Your task to perform on an android device: turn on location history Image 0: 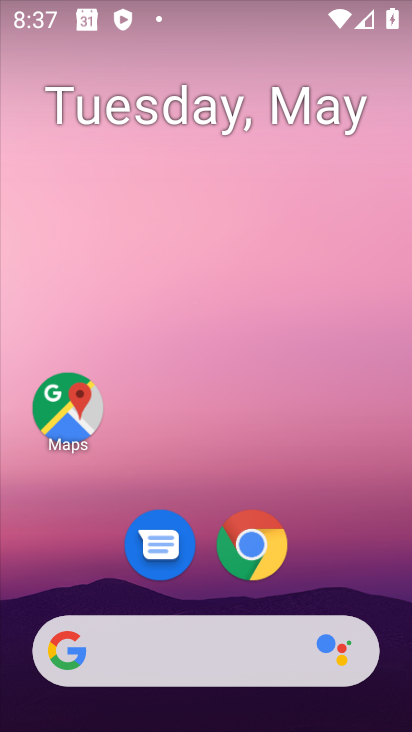
Step 0: drag from (348, 543) to (321, 138)
Your task to perform on an android device: turn on location history Image 1: 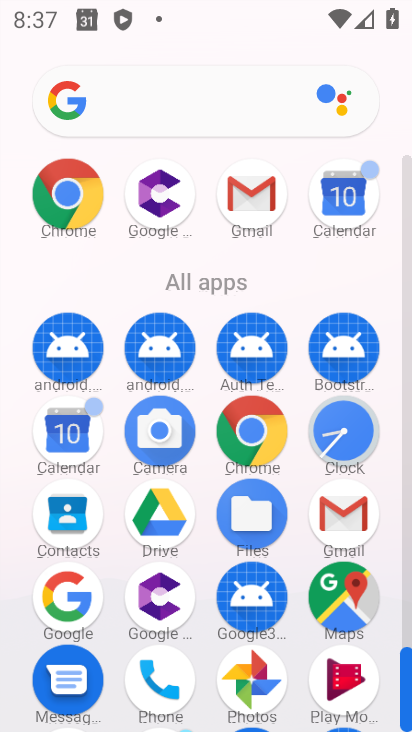
Step 1: drag from (155, 653) to (207, 306)
Your task to perform on an android device: turn on location history Image 2: 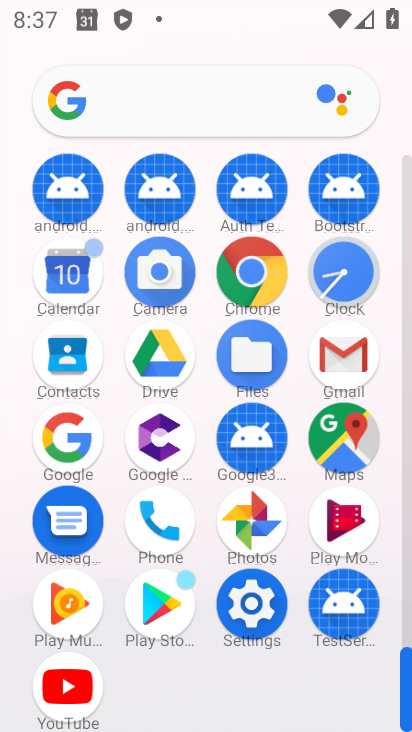
Step 2: click (253, 607)
Your task to perform on an android device: turn on location history Image 3: 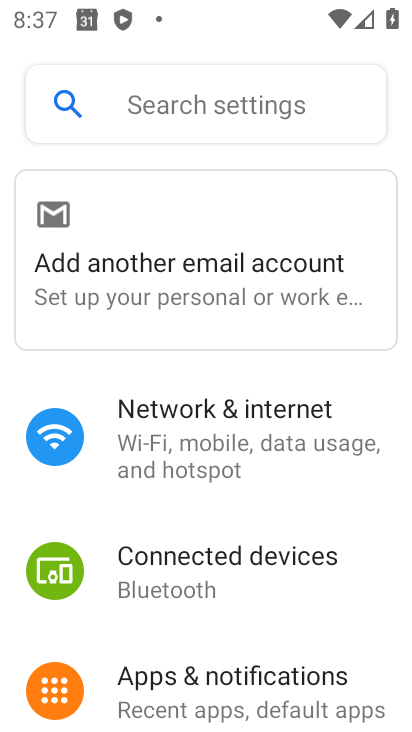
Step 3: drag from (364, 607) to (308, 257)
Your task to perform on an android device: turn on location history Image 4: 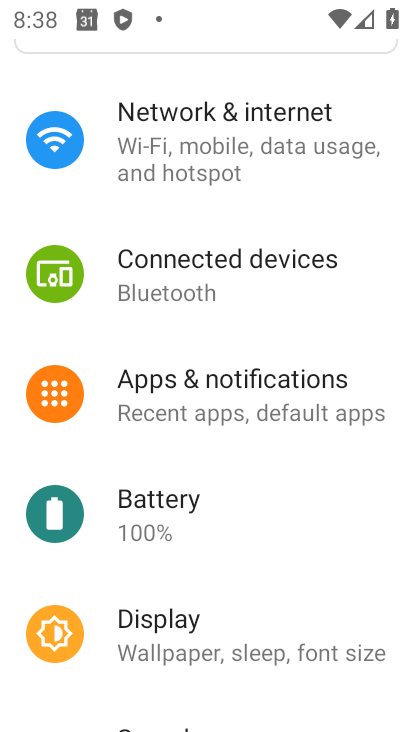
Step 4: drag from (245, 528) to (273, 186)
Your task to perform on an android device: turn on location history Image 5: 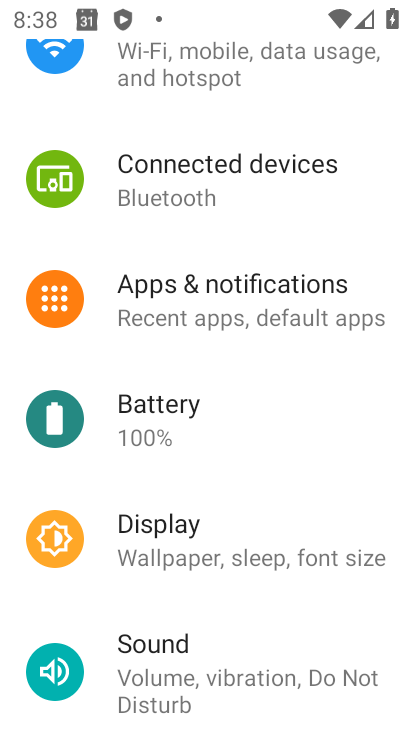
Step 5: drag from (256, 606) to (278, 309)
Your task to perform on an android device: turn on location history Image 6: 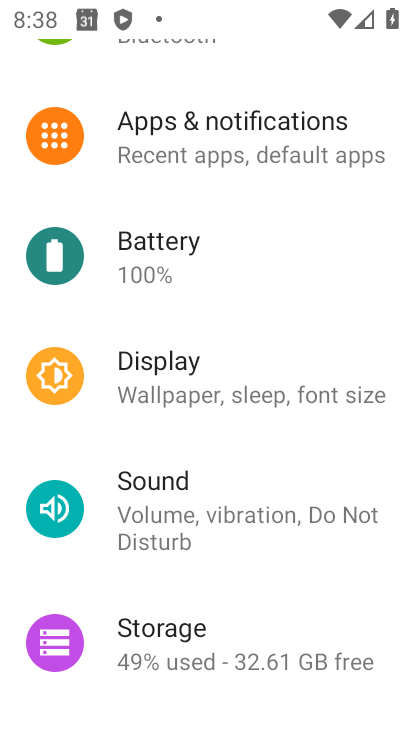
Step 6: drag from (247, 578) to (266, 325)
Your task to perform on an android device: turn on location history Image 7: 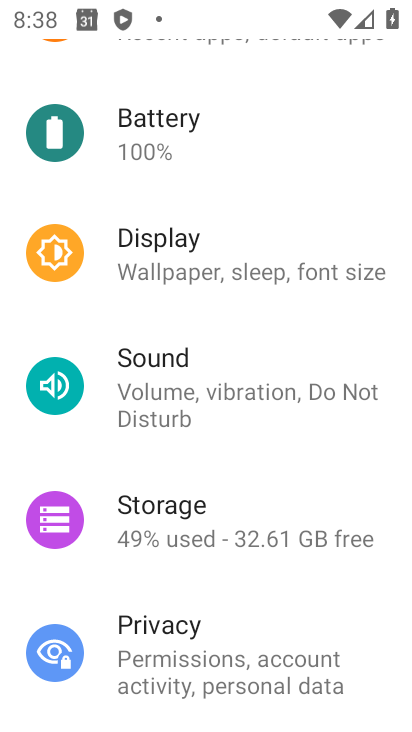
Step 7: drag from (205, 591) to (232, 219)
Your task to perform on an android device: turn on location history Image 8: 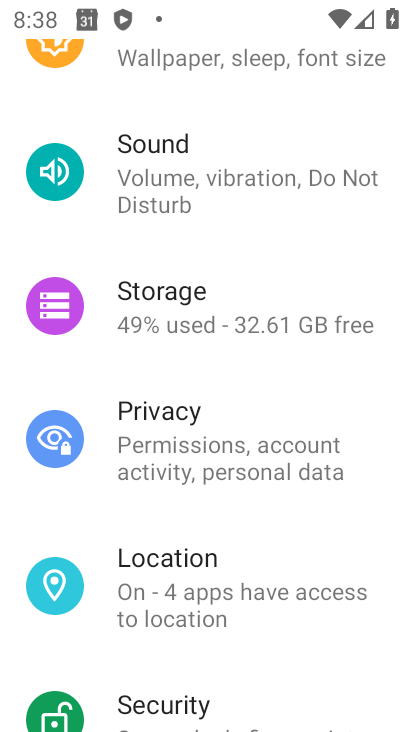
Step 8: click (185, 600)
Your task to perform on an android device: turn on location history Image 9: 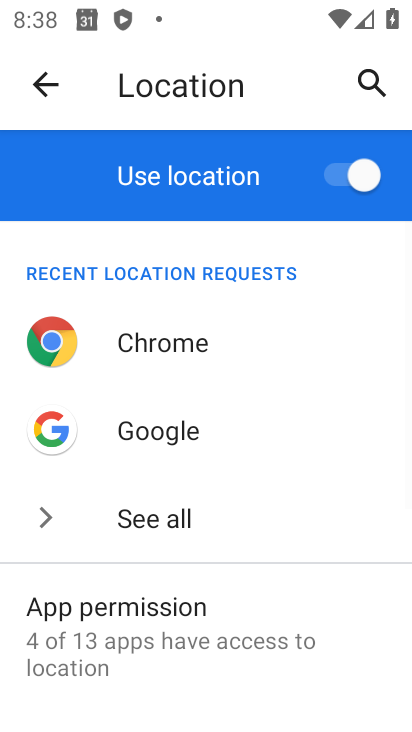
Step 9: drag from (186, 697) to (205, 492)
Your task to perform on an android device: turn on location history Image 10: 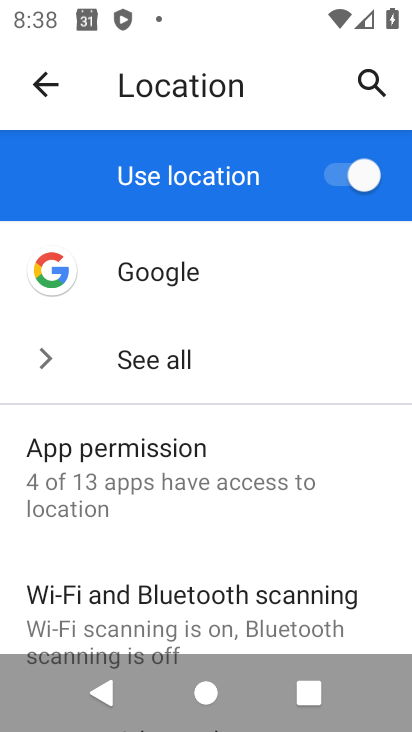
Step 10: drag from (202, 619) to (247, 422)
Your task to perform on an android device: turn on location history Image 11: 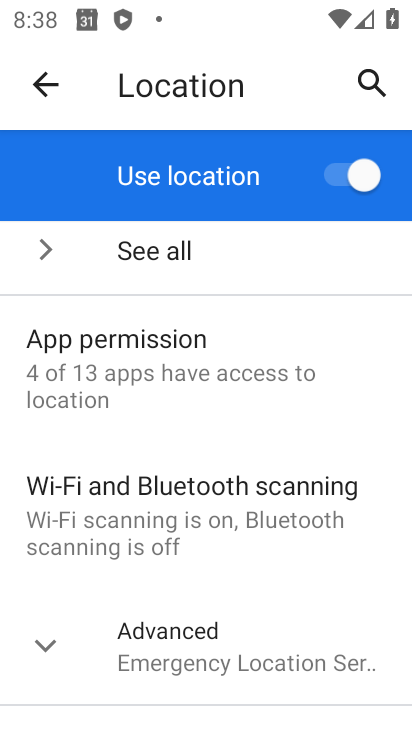
Step 11: click (241, 620)
Your task to perform on an android device: turn on location history Image 12: 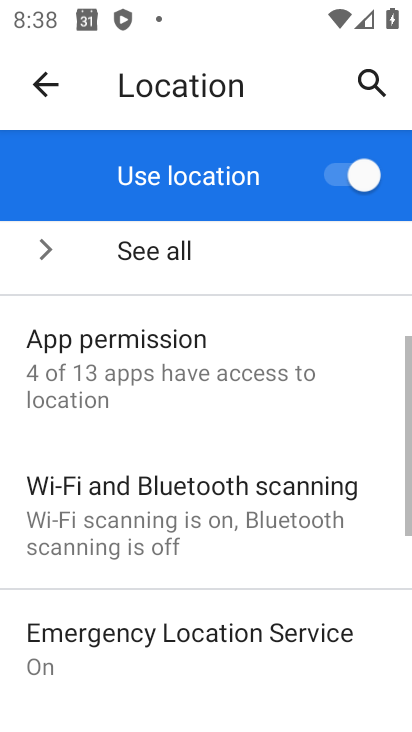
Step 12: drag from (253, 655) to (289, 385)
Your task to perform on an android device: turn on location history Image 13: 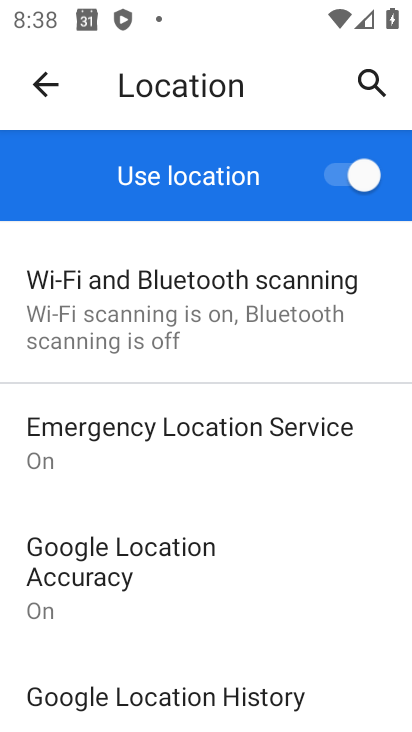
Step 13: click (190, 592)
Your task to perform on an android device: turn on location history Image 14: 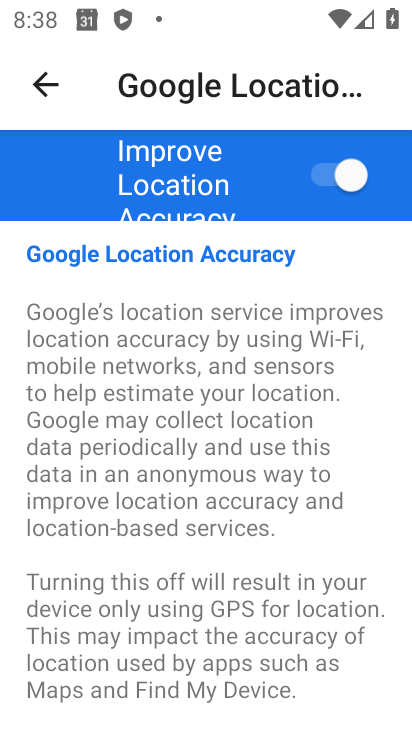
Step 14: task complete